Your task to perform on an android device: set the timer Image 0: 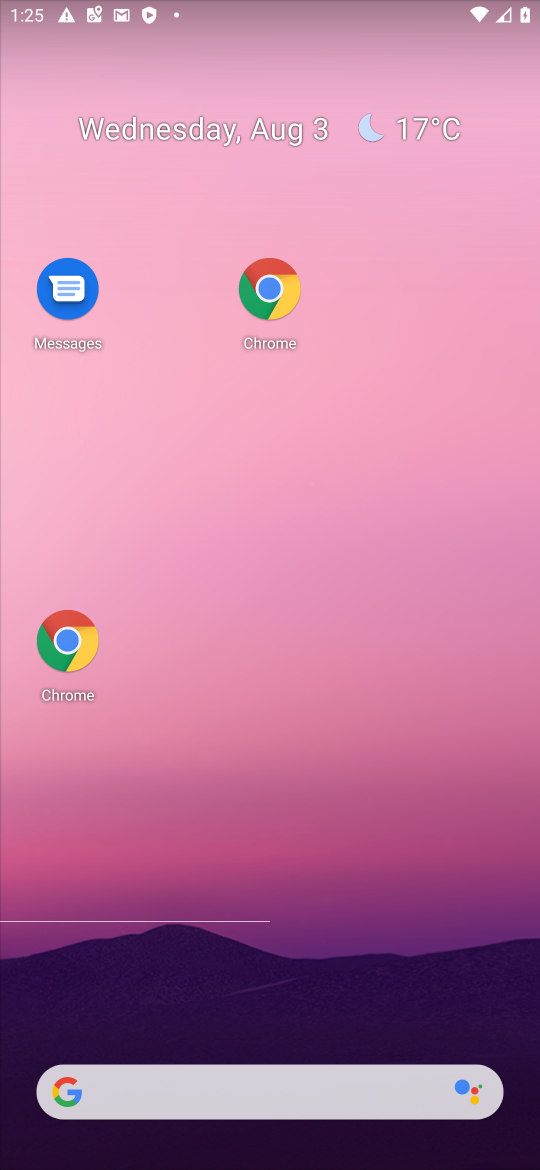
Step 0: drag from (370, 1030) to (312, 221)
Your task to perform on an android device: set the timer Image 1: 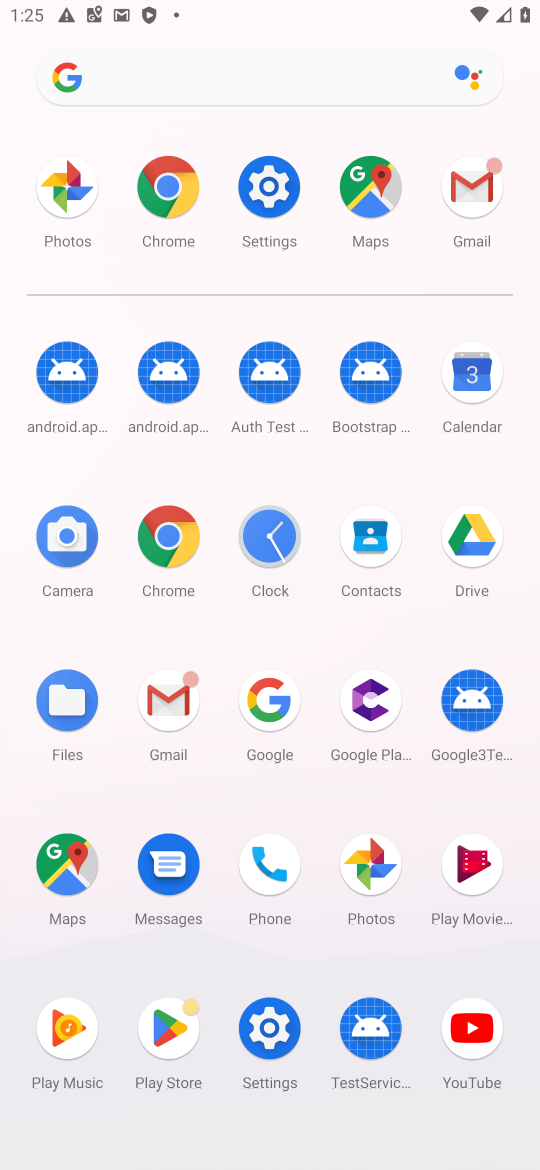
Step 1: click (274, 553)
Your task to perform on an android device: set the timer Image 2: 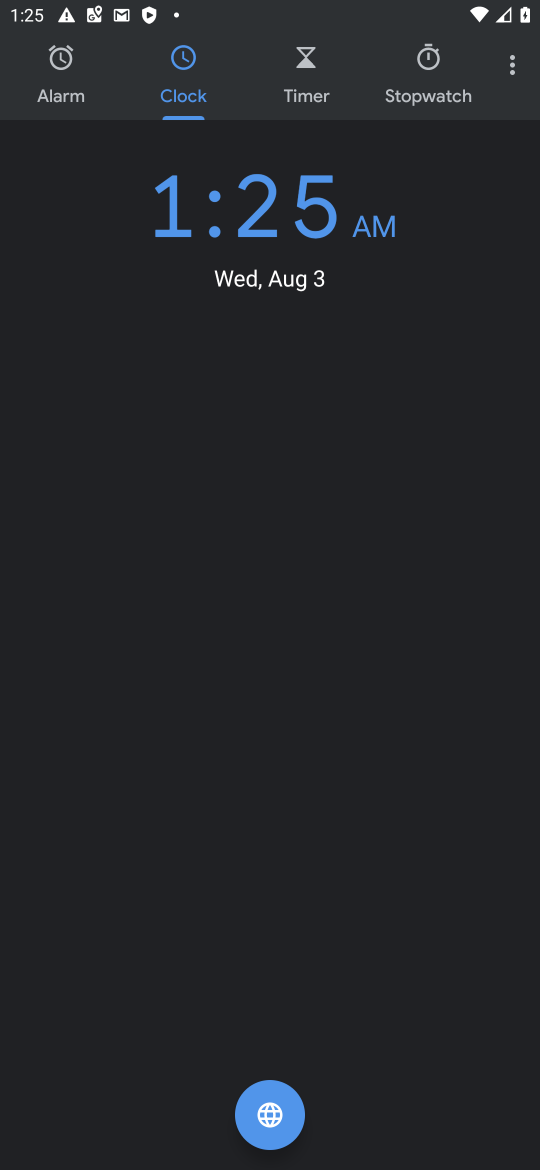
Step 2: click (322, 91)
Your task to perform on an android device: set the timer Image 3: 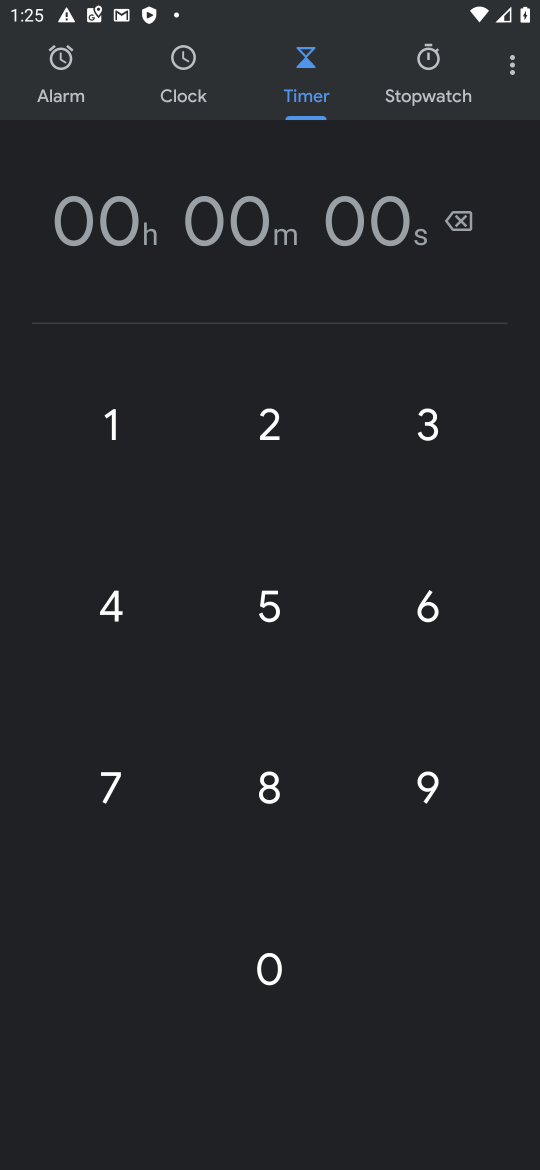
Step 3: task complete